Your task to perform on an android device: search for starred emails in the gmail app Image 0: 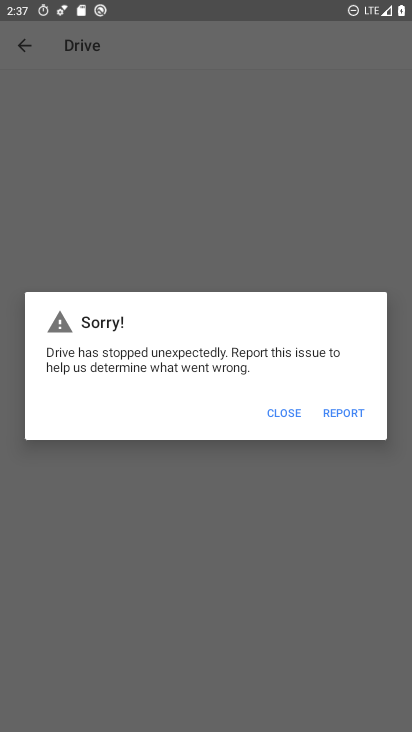
Step 0: press home button
Your task to perform on an android device: search for starred emails in the gmail app Image 1: 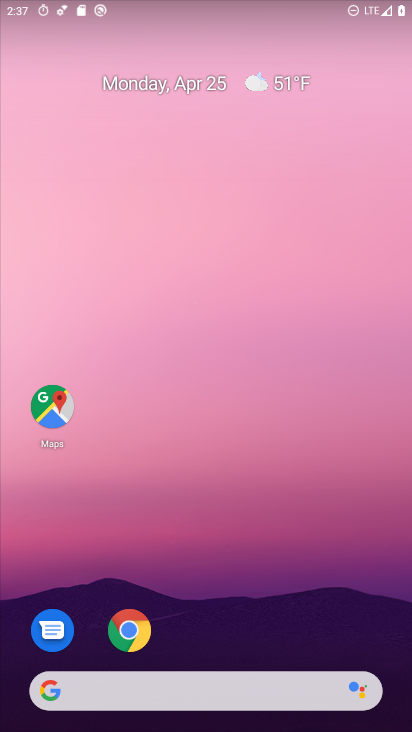
Step 1: drag from (273, 556) to (407, 69)
Your task to perform on an android device: search for starred emails in the gmail app Image 2: 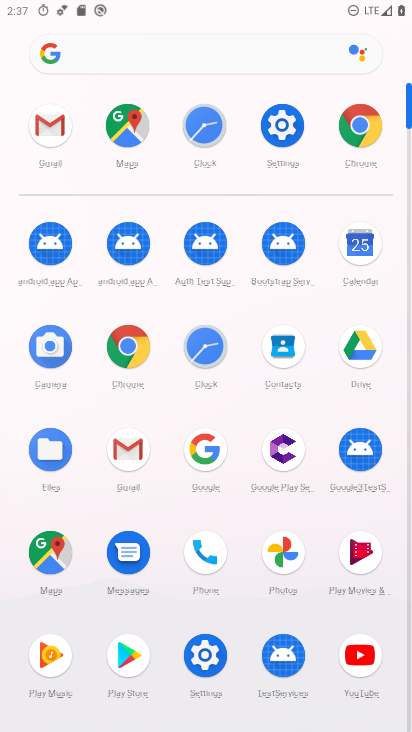
Step 2: click (115, 431)
Your task to perform on an android device: search for starred emails in the gmail app Image 3: 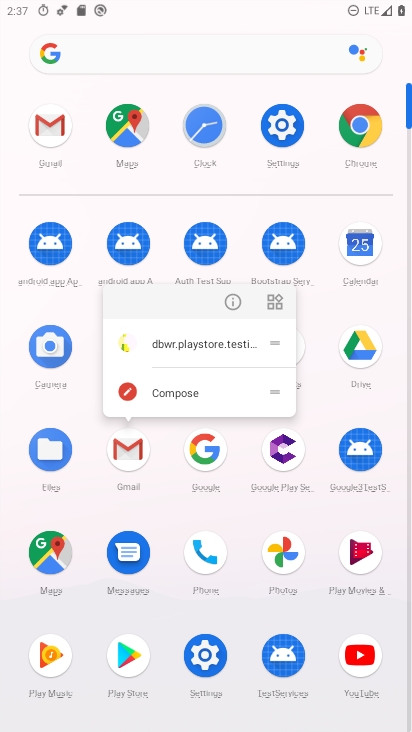
Step 3: click (222, 291)
Your task to perform on an android device: search for starred emails in the gmail app Image 4: 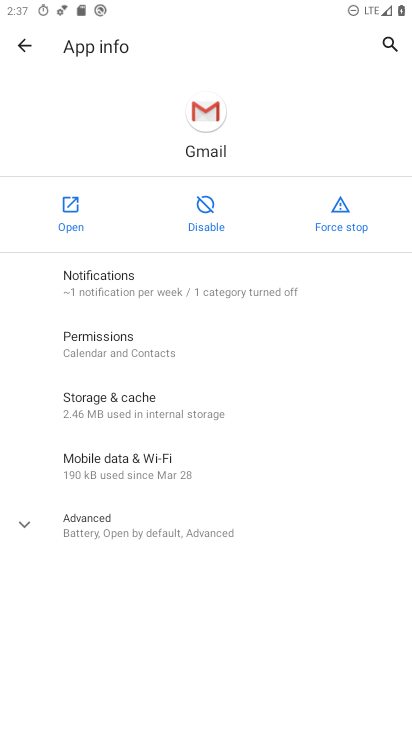
Step 4: click (74, 225)
Your task to perform on an android device: search for starred emails in the gmail app Image 5: 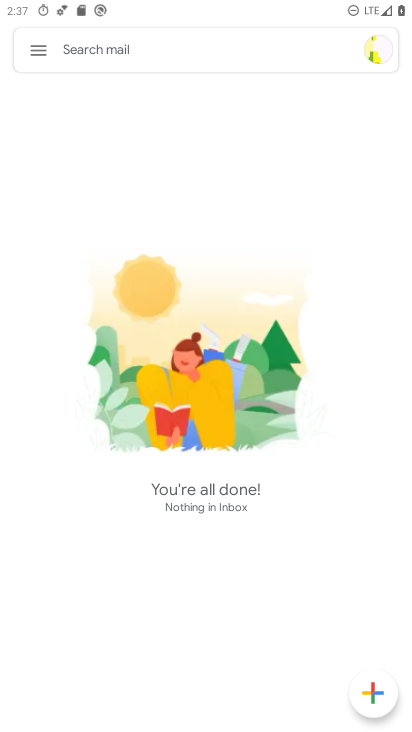
Step 5: drag from (194, 513) to (316, 180)
Your task to perform on an android device: search for starred emails in the gmail app Image 6: 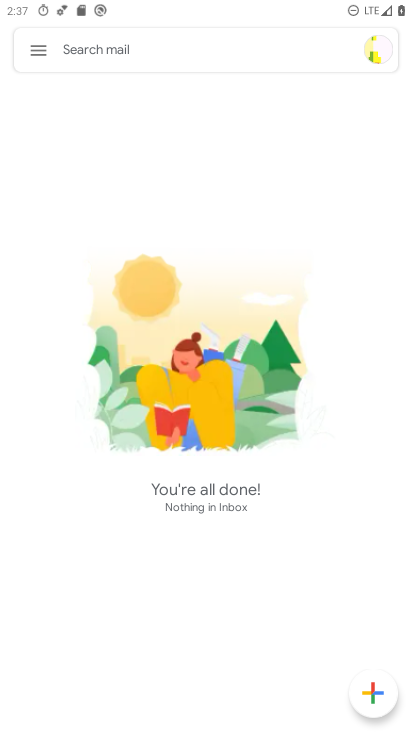
Step 6: click (30, 50)
Your task to perform on an android device: search for starred emails in the gmail app Image 7: 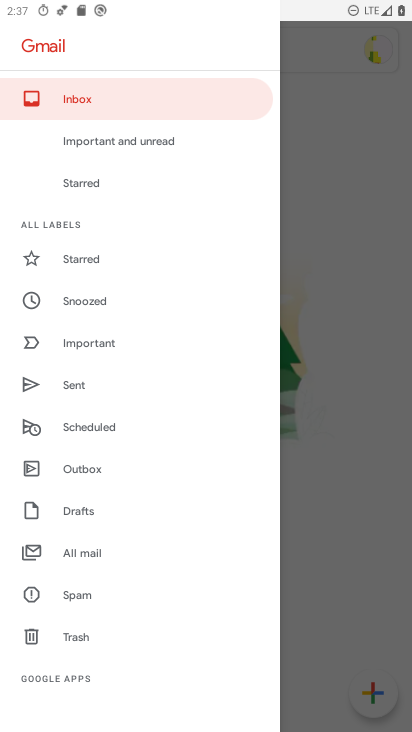
Step 7: click (107, 264)
Your task to perform on an android device: search for starred emails in the gmail app Image 8: 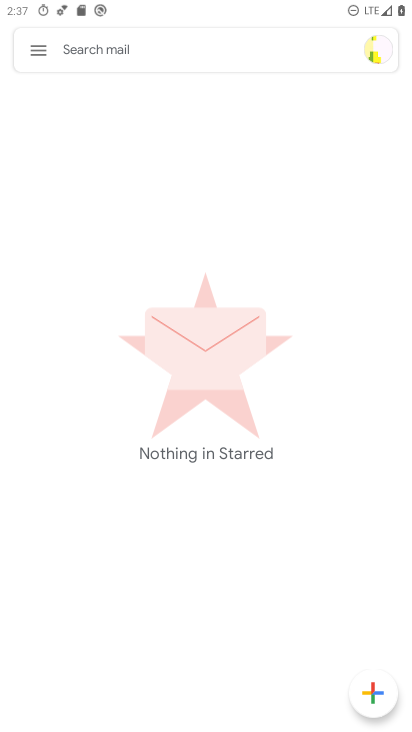
Step 8: task complete